Your task to perform on an android device: Go to Maps Image 0: 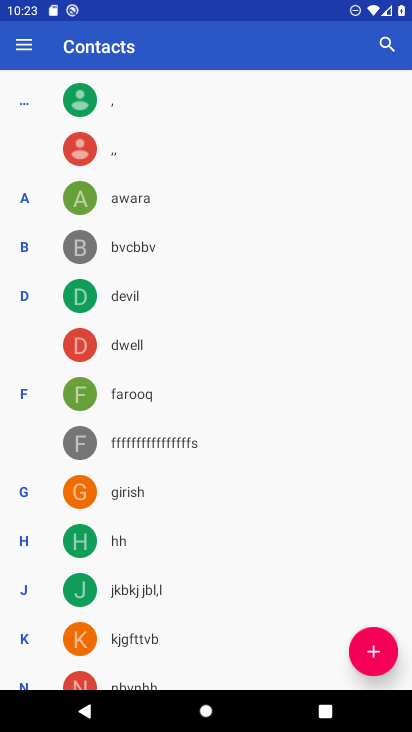
Step 0: press home button
Your task to perform on an android device: Go to Maps Image 1: 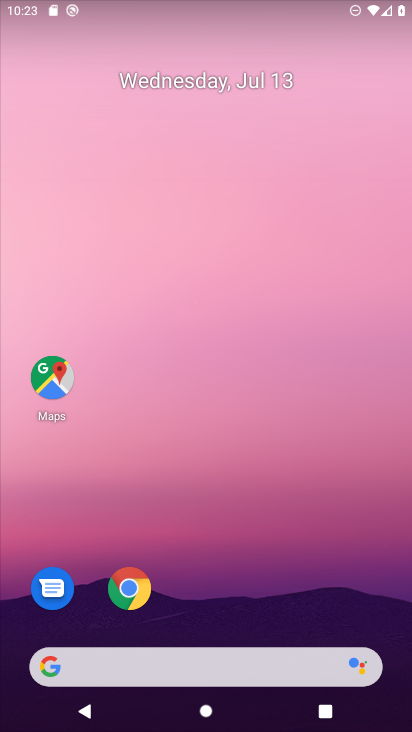
Step 1: click (54, 377)
Your task to perform on an android device: Go to Maps Image 2: 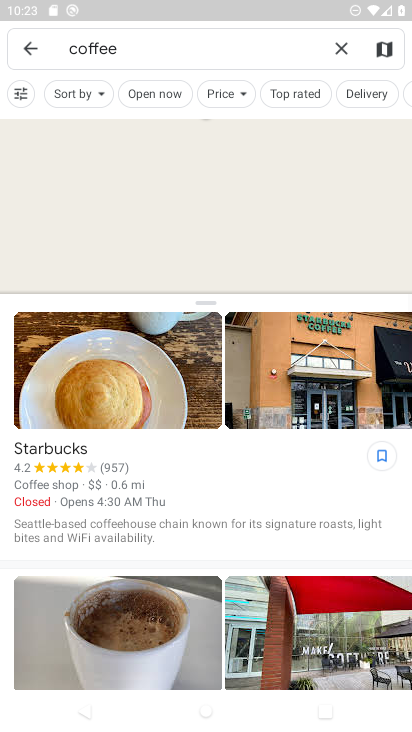
Step 2: click (34, 46)
Your task to perform on an android device: Go to Maps Image 3: 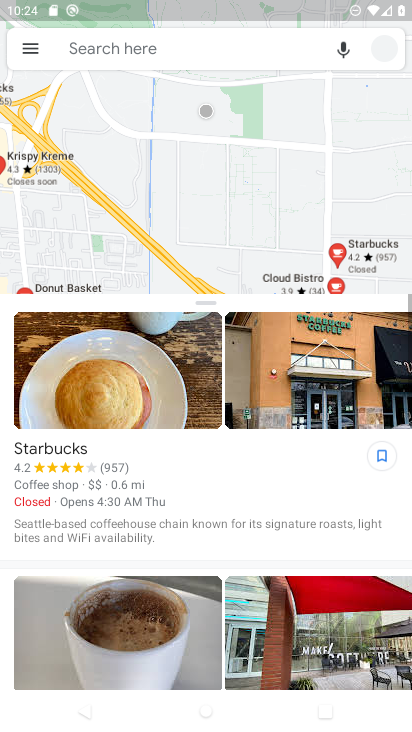
Step 3: click (34, 46)
Your task to perform on an android device: Go to Maps Image 4: 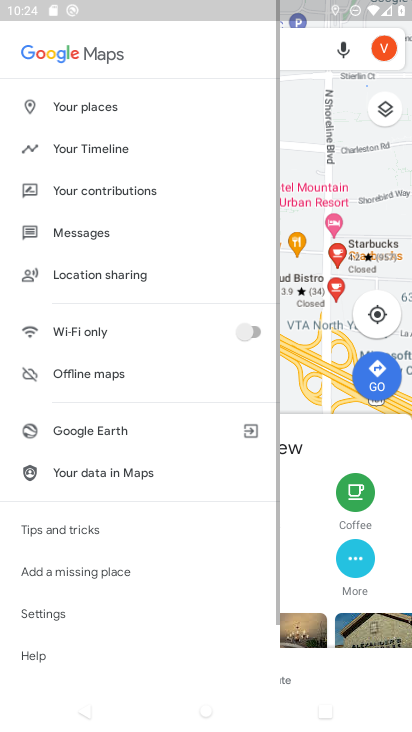
Step 4: task complete